Your task to perform on an android device: allow notifications from all sites in the chrome app Image 0: 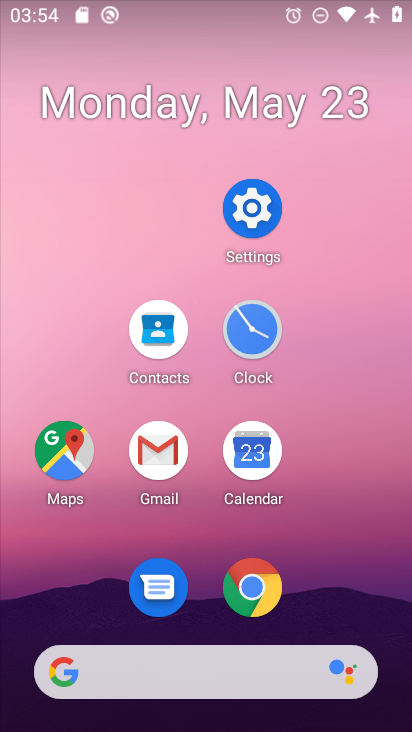
Step 0: click (240, 597)
Your task to perform on an android device: allow notifications from all sites in the chrome app Image 1: 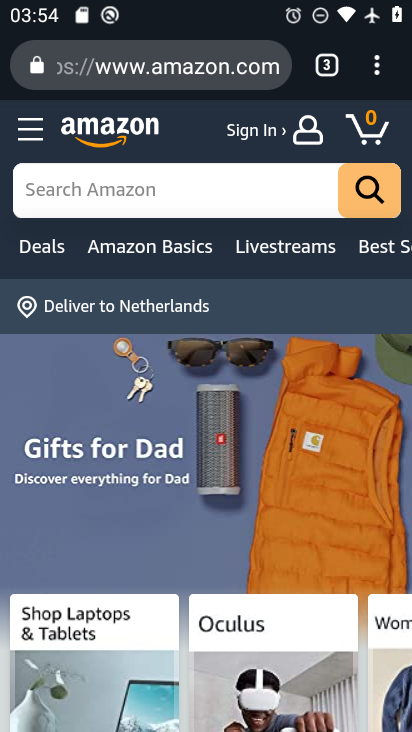
Step 1: click (388, 57)
Your task to perform on an android device: allow notifications from all sites in the chrome app Image 2: 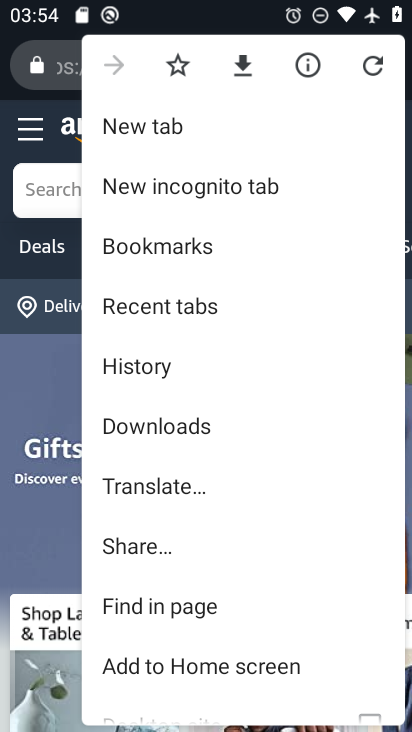
Step 2: drag from (200, 604) to (214, 396)
Your task to perform on an android device: allow notifications from all sites in the chrome app Image 3: 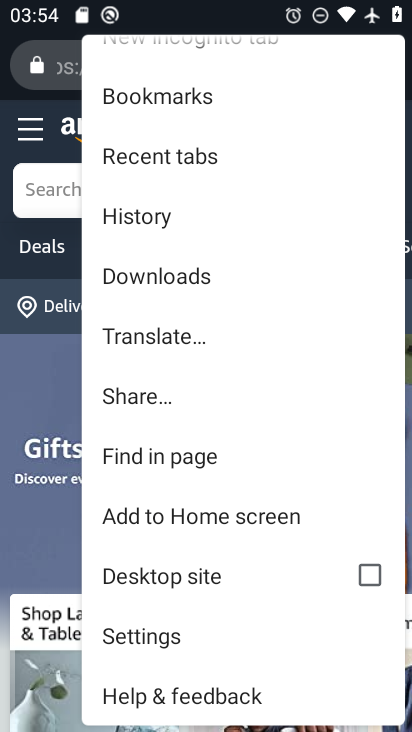
Step 3: click (177, 627)
Your task to perform on an android device: allow notifications from all sites in the chrome app Image 4: 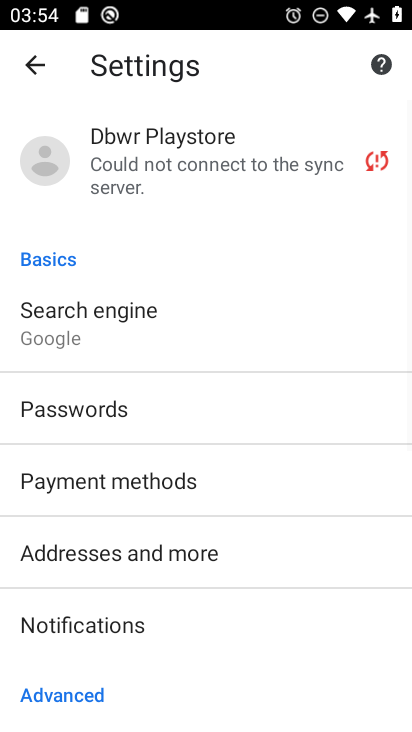
Step 4: drag from (213, 587) to (243, 354)
Your task to perform on an android device: allow notifications from all sites in the chrome app Image 5: 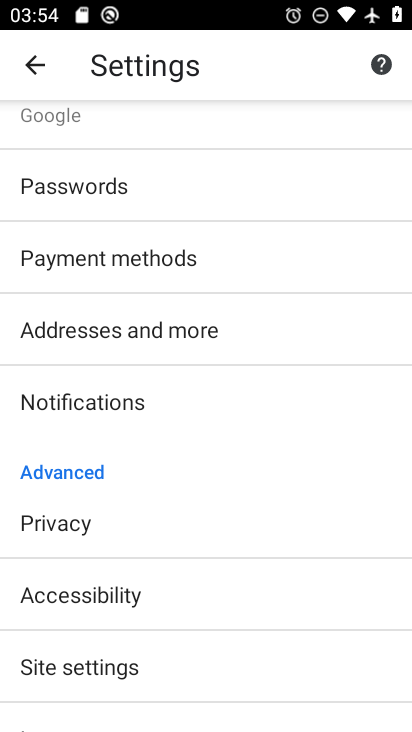
Step 5: click (183, 398)
Your task to perform on an android device: allow notifications from all sites in the chrome app Image 6: 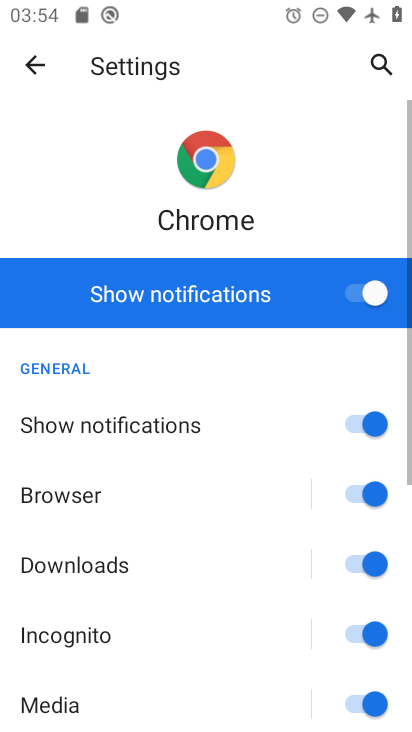
Step 6: task complete